Your task to perform on an android device: Open wifi settings Image 0: 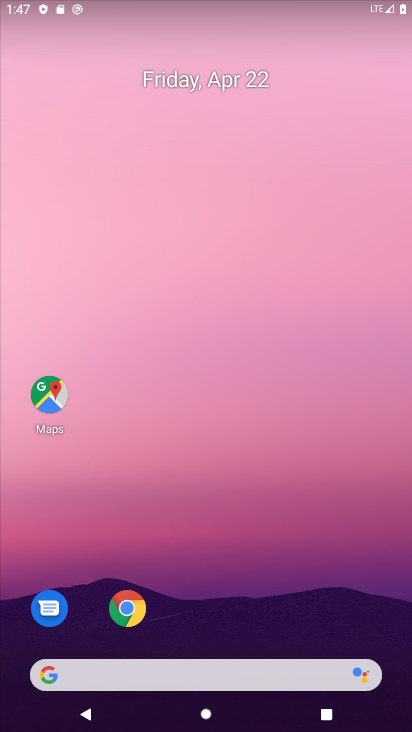
Step 0: drag from (264, 685) to (235, 199)
Your task to perform on an android device: Open wifi settings Image 1: 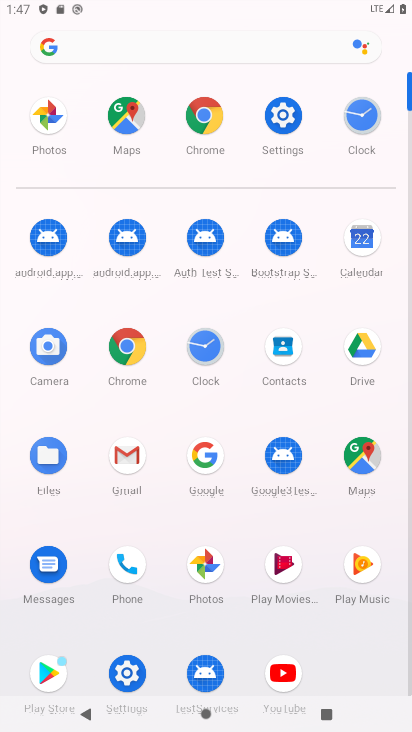
Step 1: click (277, 114)
Your task to perform on an android device: Open wifi settings Image 2: 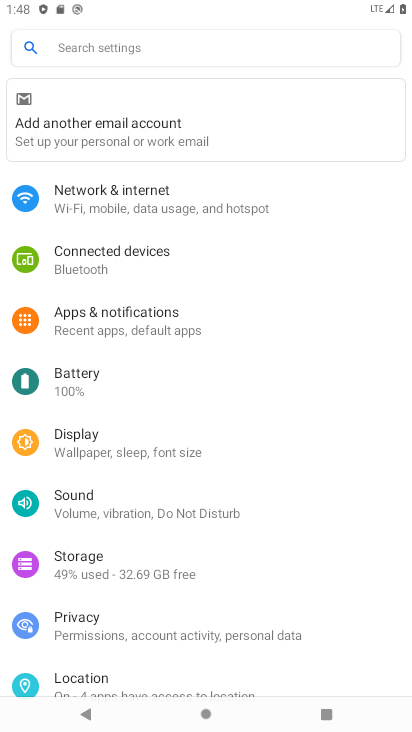
Step 2: click (146, 192)
Your task to perform on an android device: Open wifi settings Image 3: 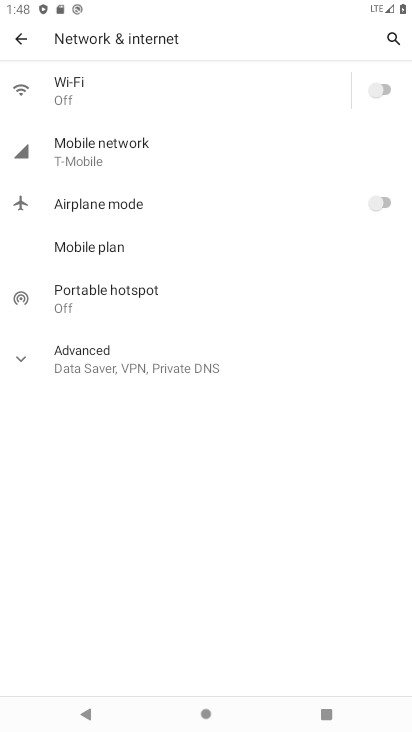
Step 3: click (139, 86)
Your task to perform on an android device: Open wifi settings Image 4: 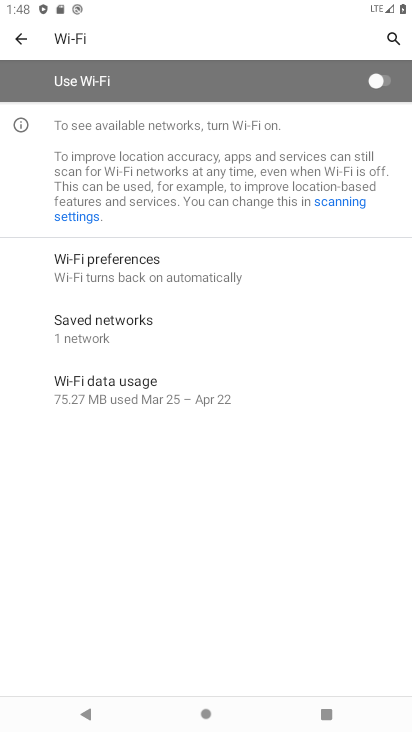
Step 4: task complete